Your task to perform on an android device: turn on the 12-hour format for clock Image 0: 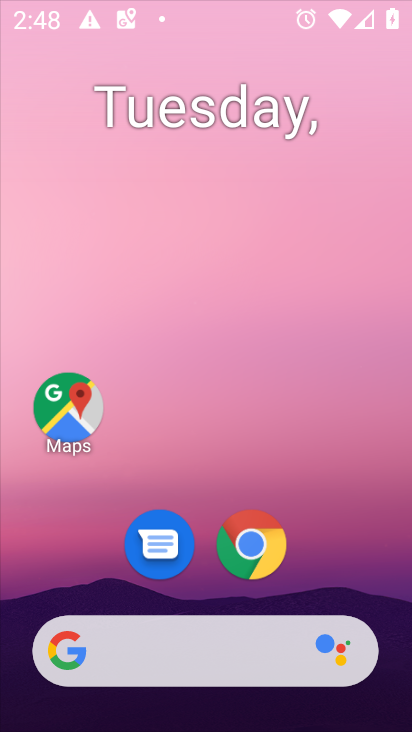
Step 0: drag from (350, 528) to (295, 91)
Your task to perform on an android device: turn on the 12-hour format for clock Image 1: 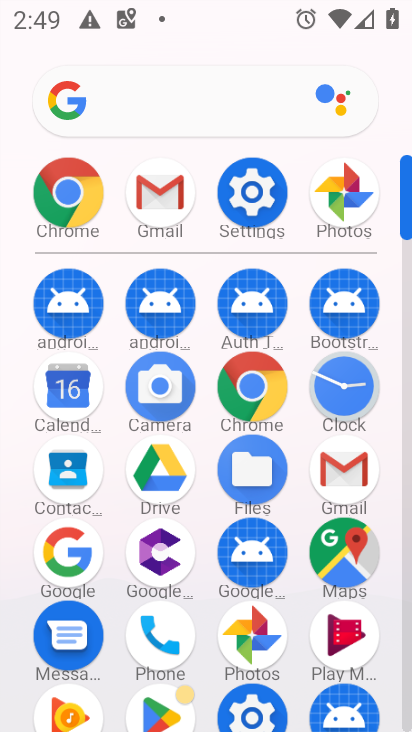
Step 1: click (340, 393)
Your task to perform on an android device: turn on the 12-hour format for clock Image 2: 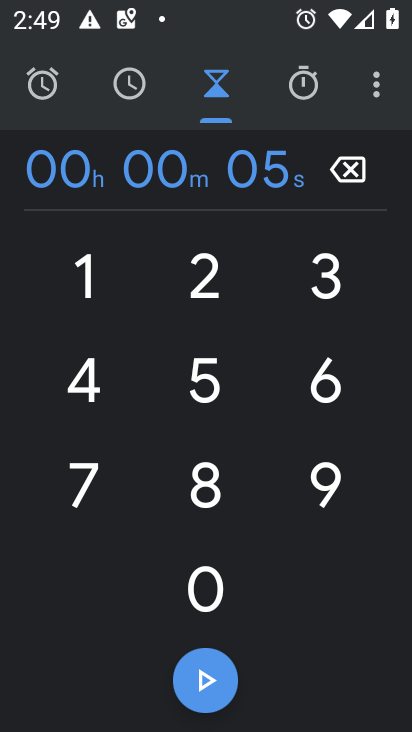
Step 2: click (380, 72)
Your task to perform on an android device: turn on the 12-hour format for clock Image 3: 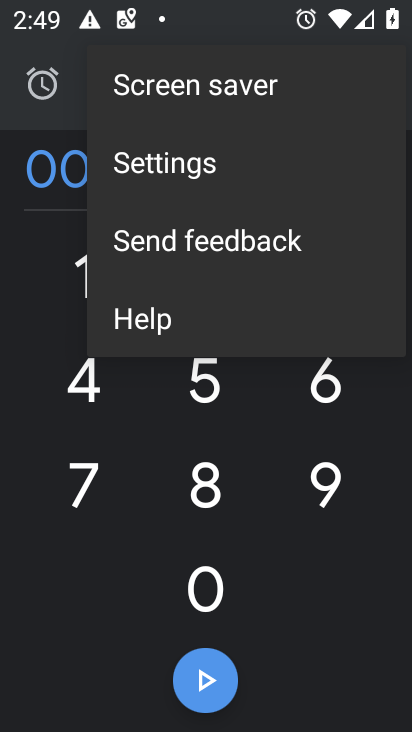
Step 3: click (166, 178)
Your task to perform on an android device: turn on the 12-hour format for clock Image 4: 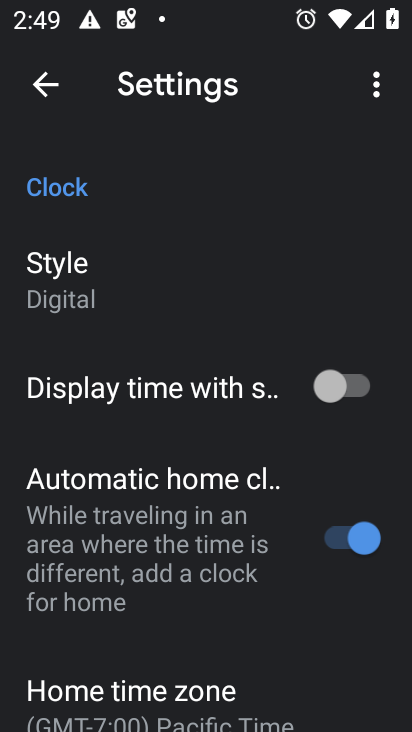
Step 4: drag from (241, 633) to (273, 120)
Your task to perform on an android device: turn on the 12-hour format for clock Image 5: 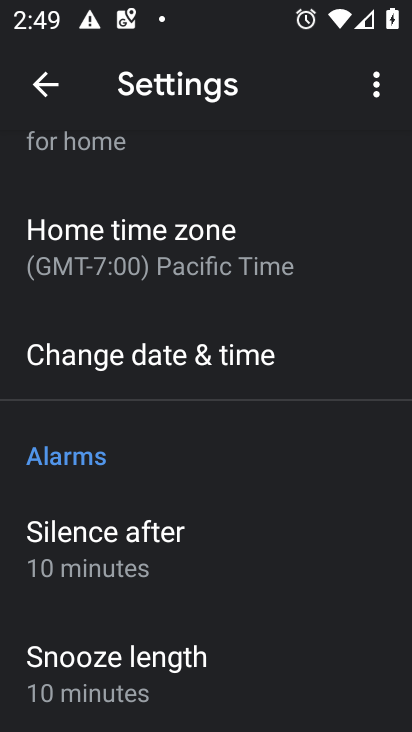
Step 5: click (185, 340)
Your task to perform on an android device: turn on the 12-hour format for clock Image 6: 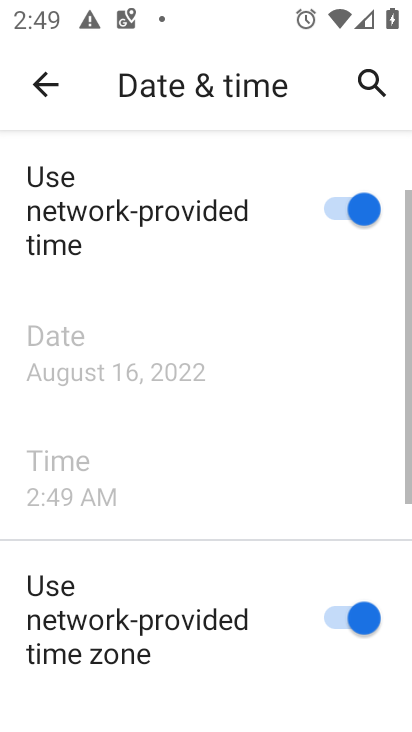
Step 6: task complete